Your task to perform on an android device: toggle show notifications on the lock screen Image 0: 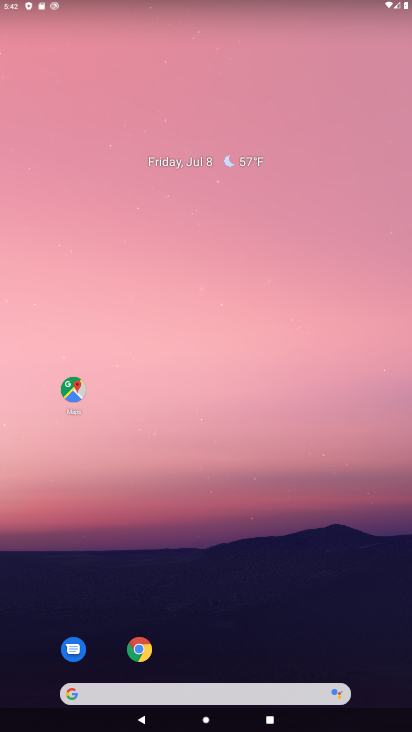
Step 0: drag from (233, 691) to (160, 91)
Your task to perform on an android device: toggle show notifications on the lock screen Image 1: 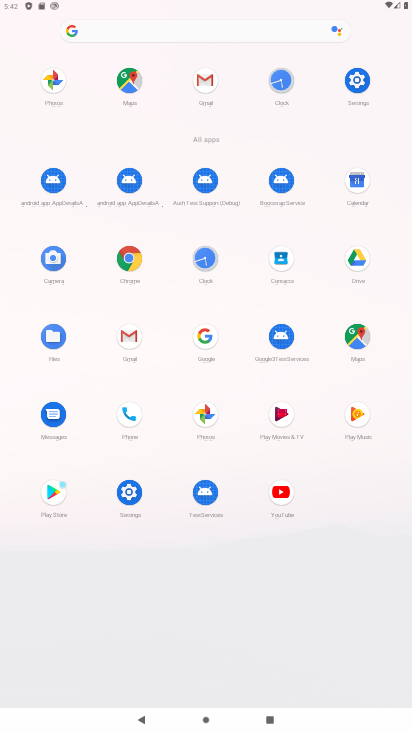
Step 1: click (351, 81)
Your task to perform on an android device: toggle show notifications on the lock screen Image 2: 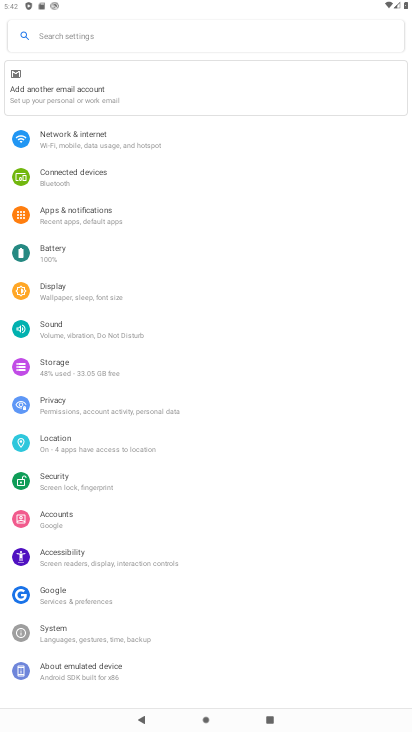
Step 2: click (90, 220)
Your task to perform on an android device: toggle show notifications on the lock screen Image 3: 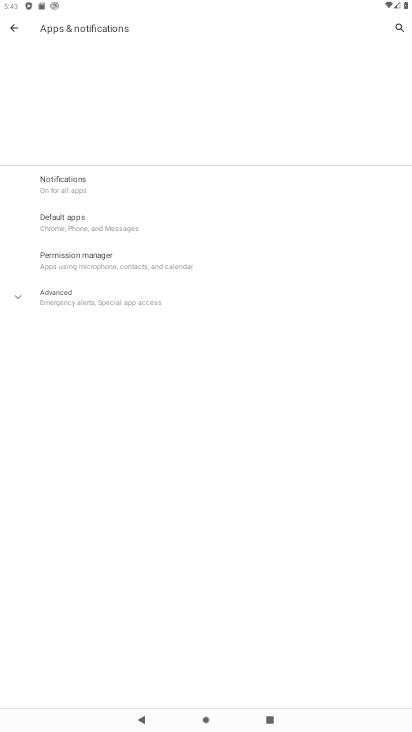
Step 3: click (57, 186)
Your task to perform on an android device: toggle show notifications on the lock screen Image 4: 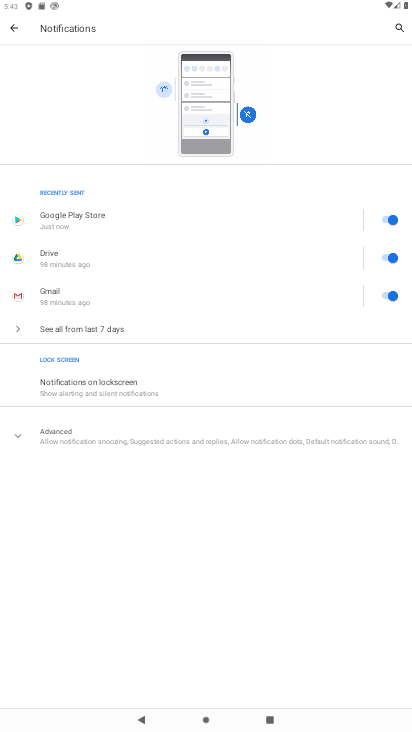
Step 4: click (137, 389)
Your task to perform on an android device: toggle show notifications on the lock screen Image 5: 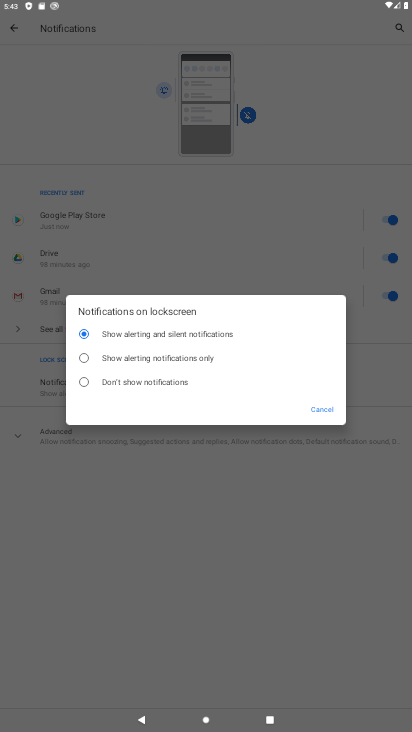
Step 5: click (155, 351)
Your task to perform on an android device: toggle show notifications on the lock screen Image 6: 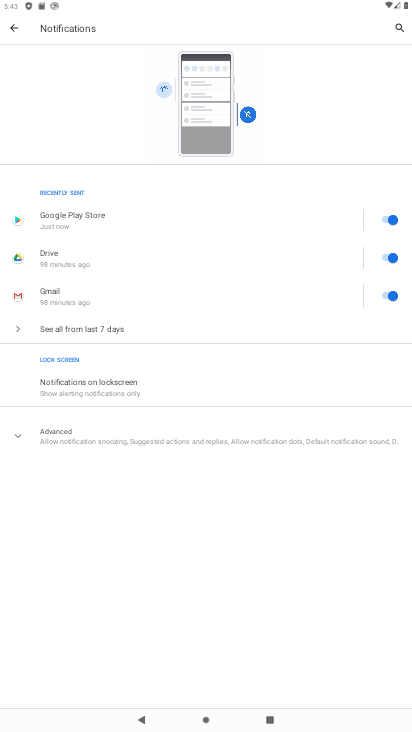
Step 6: task complete